Your task to perform on an android device: Go to eBay Image 0: 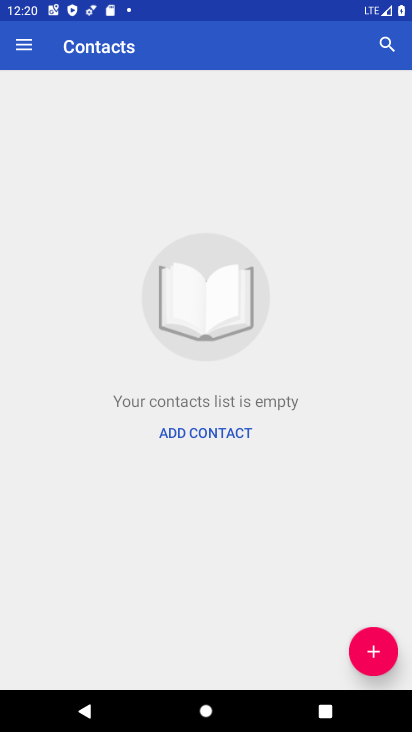
Step 0: press home button
Your task to perform on an android device: Go to eBay Image 1: 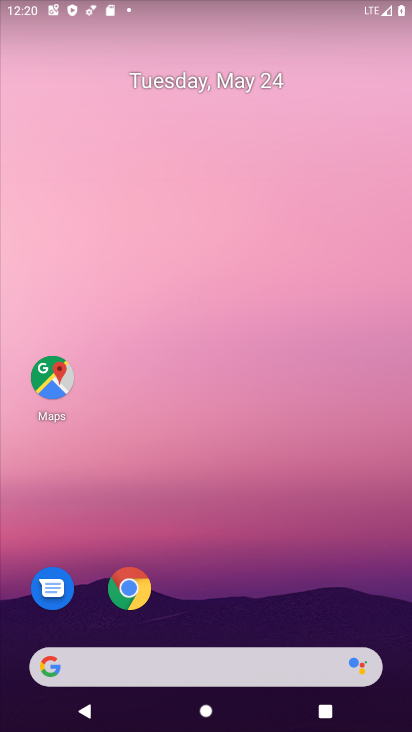
Step 1: click (127, 584)
Your task to perform on an android device: Go to eBay Image 2: 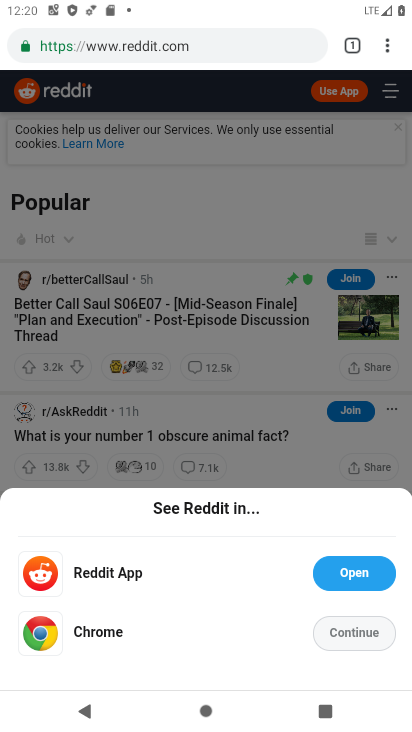
Step 2: click (130, 39)
Your task to perform on an android device: Go to eBay Image 3: 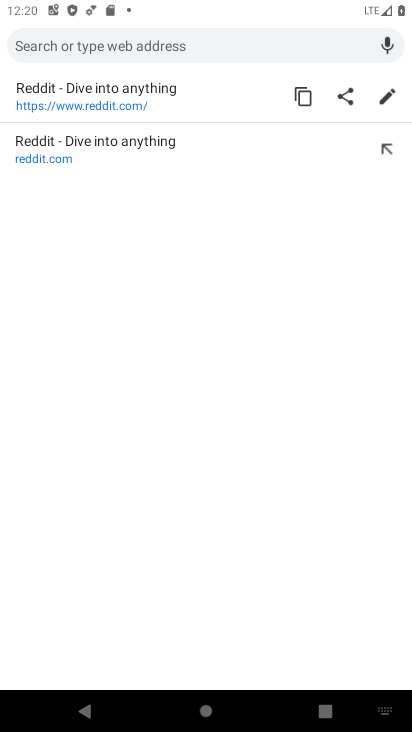
Step 3: type "www.ebay.com"
Your task to perform on an android device: Go to eBay Image 4: 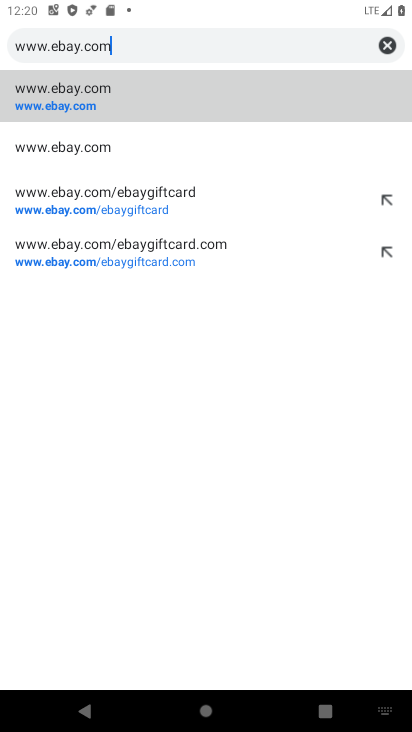
Step 4: click (97, 119)
Your task to perform on an android device: Go to eBay Image 5: 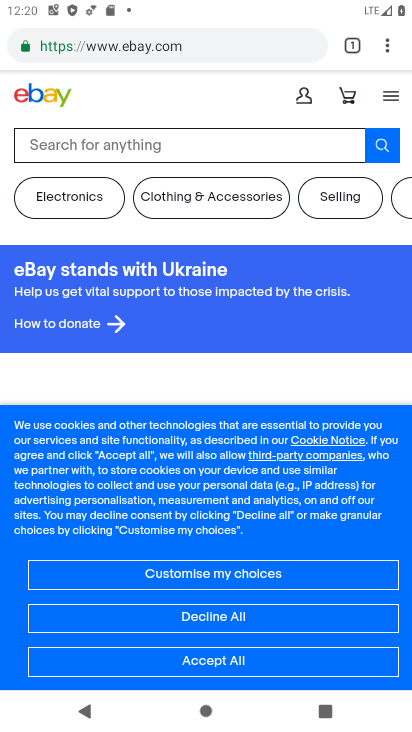
Step 5: task complete